Your task to perform on an android device: delete a single message in the gmail app Image 0: 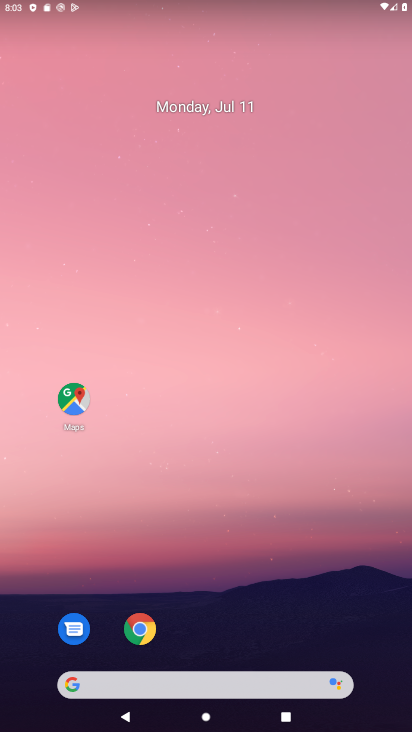
Step 0: drag from (214, 663) to (295, 62)
Your task to perform on an android device: delete a single message in the gmail app Image 1: 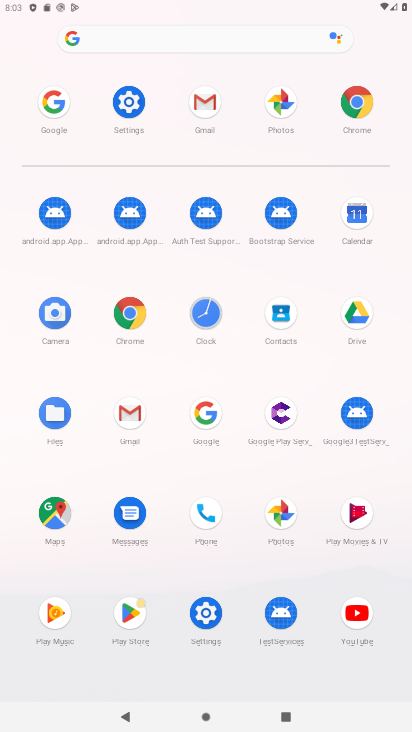
Step 1: click (133, 411)
Your task to perform on an android device: delete a single message in the gmail app Image 2: 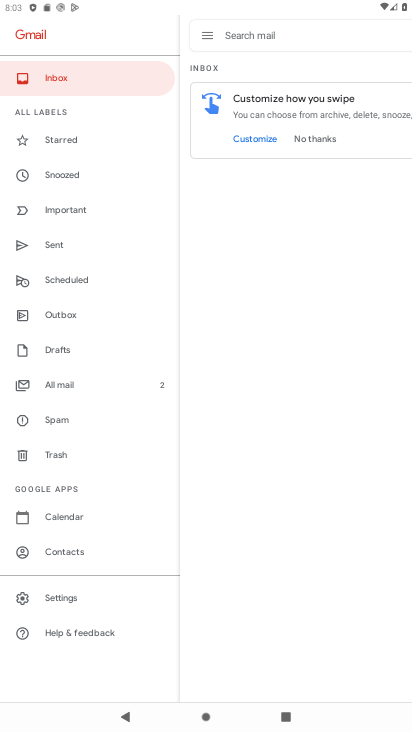
Step 2: click (89, 388)
Your task to perform on an android device: delete a single message in the gmail app Image 3: 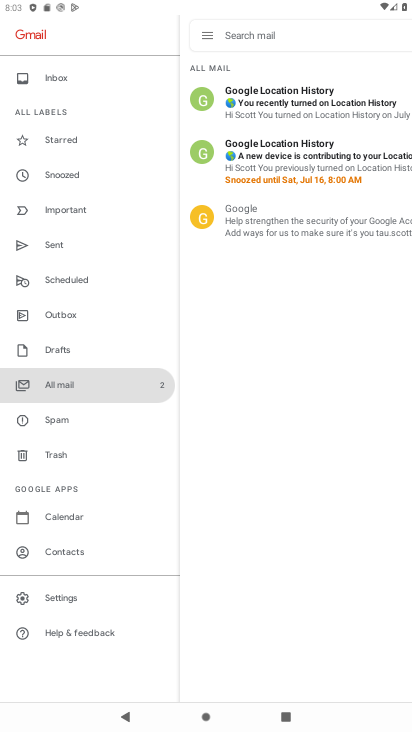
Step 3: click (297, 91)
Your task to perform on an android device: delete a single message in the gmail app Image 4: 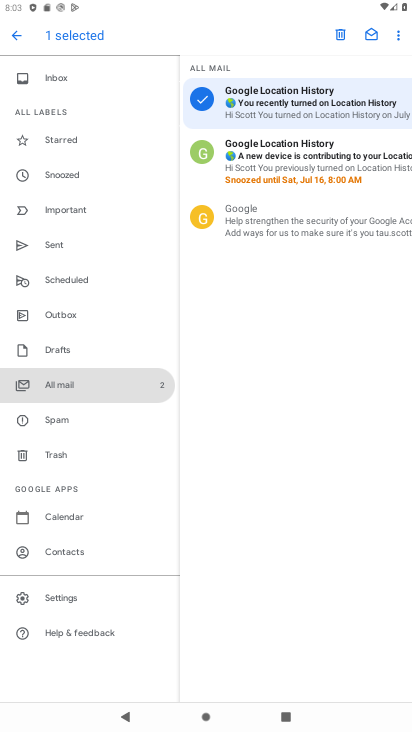
Step 4: click (340, 28)
Your task to perform on an android device: delete a single message in the gmail app Image 5: 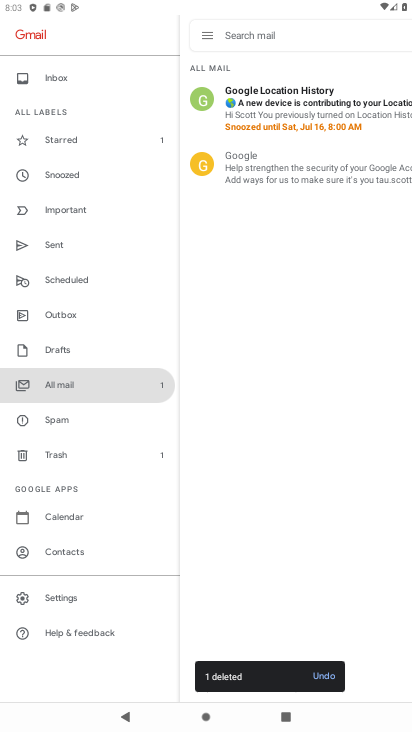
Step 5: task complete